Your task to perform on an android device: Open calendar and show me the fourth week of next month Image 0: 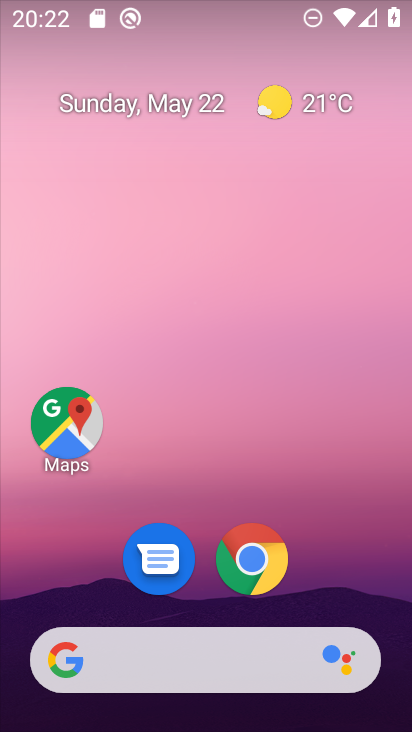
Step 0: drag from (228, 703) to (211, 169)
Your task to perform on an android device: Open calendar and show me the fourth week of next month Image 1: 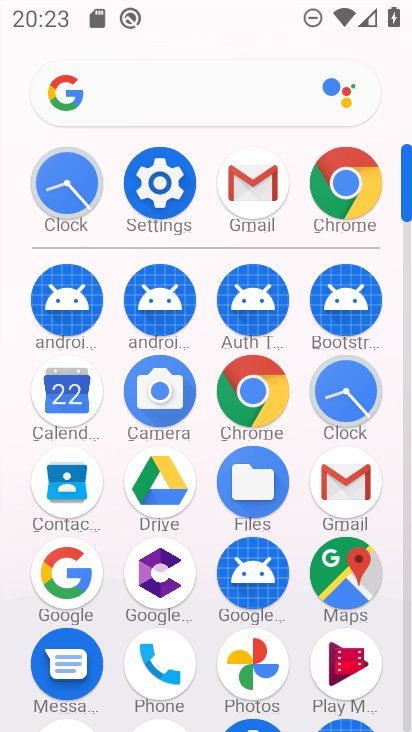
Step 1: click (62, 401)
Your task to perform on an android device: Open calendar and show me the fourth week of next month Image 2: 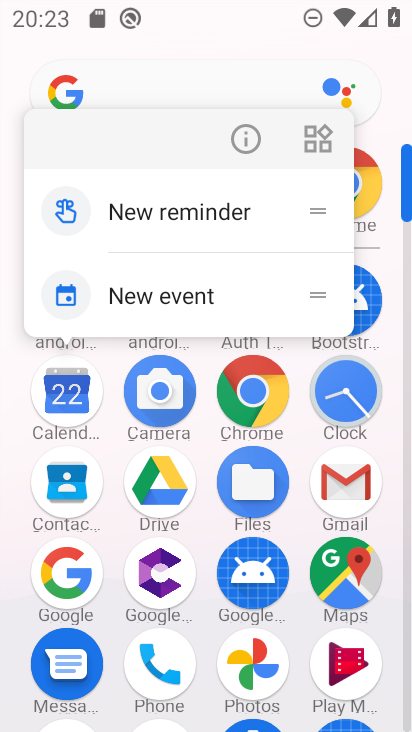
Step 2: click (57, 406)
Your task to perform on an android device: Open calendar and show me the fourth week of next month Image 3: 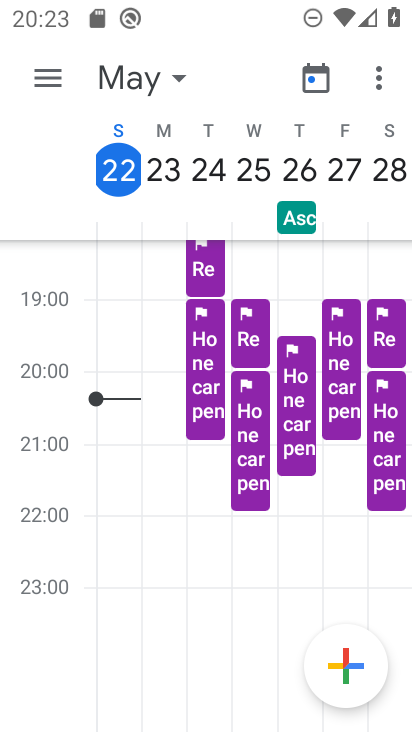
Step 3: click (45, 71)
Your task to perform on an android device: Open calendar and show me the fourth week of next month Image 4: 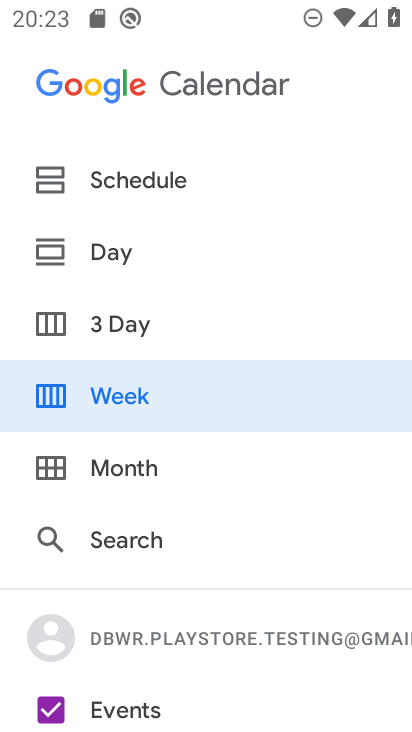
Step 4: click (131, 463)
Your task to perform on an android device: Open calendar and show me the fourth week of next month Image 5: 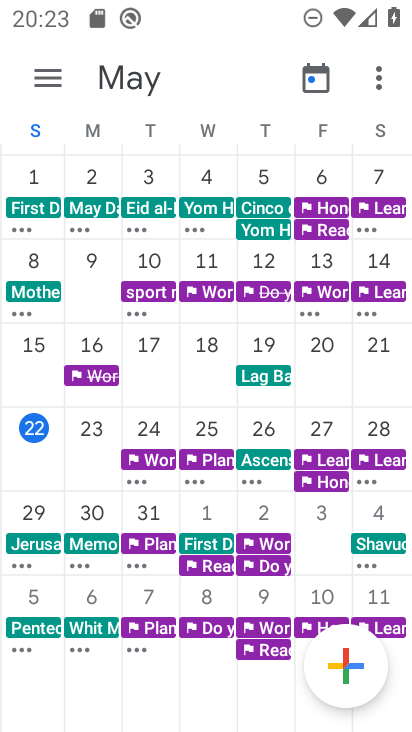
Step 5: drag from (392, 376) to (0, 370)
Your task to perform on an android device: Open calendar and show me the fourth week of next month Image 6: 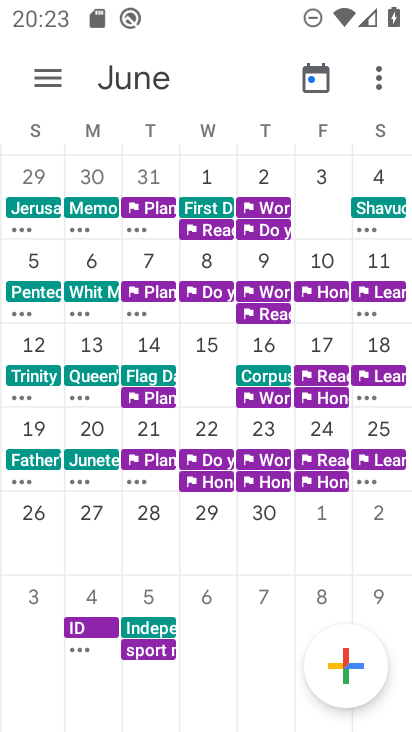
Step 6: click (84, 439)
Your task to perform on an android device: Open calendar and show me the fourth week of next month Image 7: 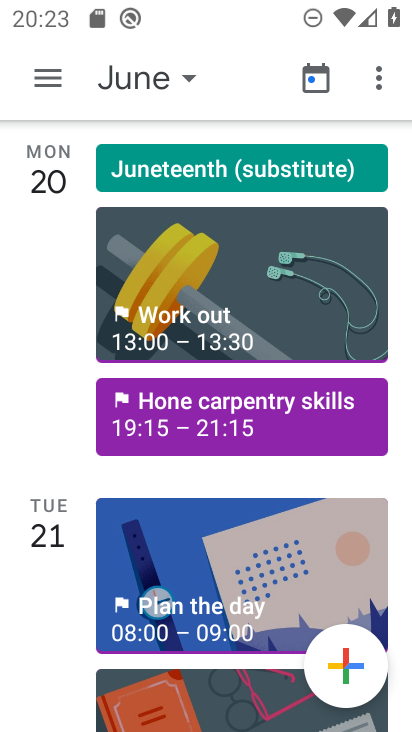
Step 7: task complete